Your task to perform on an android device: What's the weather? Image 0: 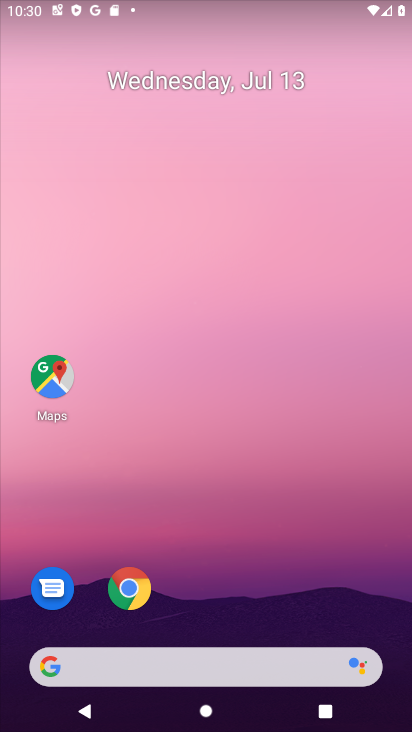
Step 0: drag from (212, 599) to (276, 41)
Your task to perform on an android device: What's the weather? Image 1: 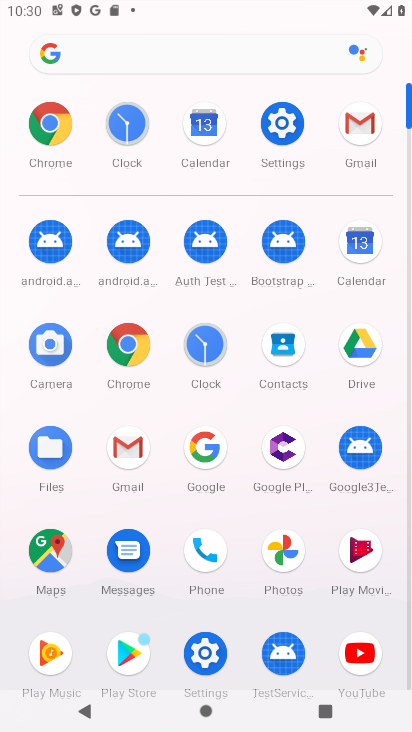
Step 1: click (207, 451)
Your task to perform on an android device: What's the weather? Image 2: 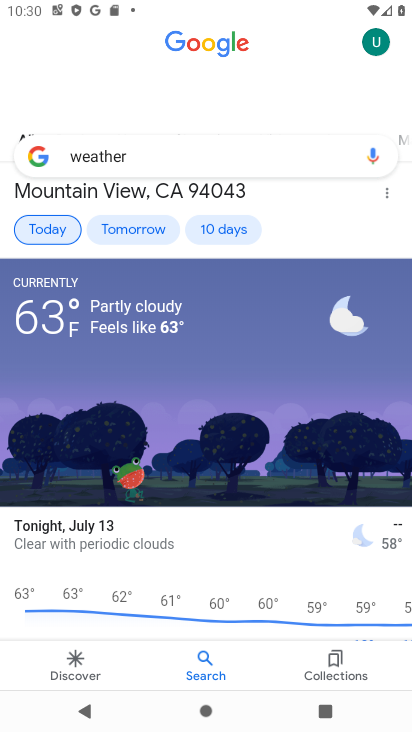
Step 2: task complete